Your task to perform on an android device: Open the map Image 0: 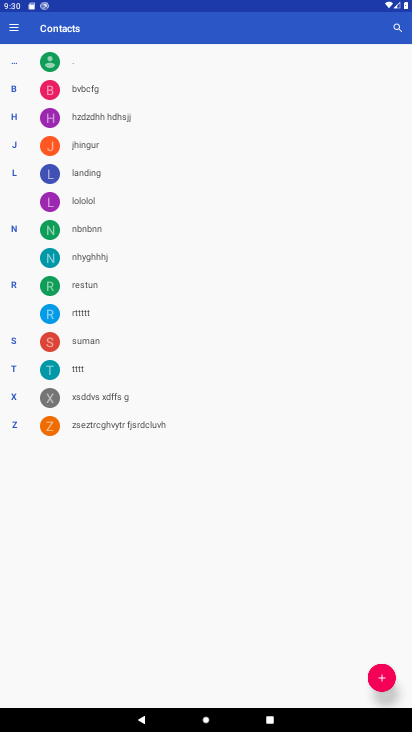
Step 0: press home button
Your task to perform on an android device: Open the map Image 1: 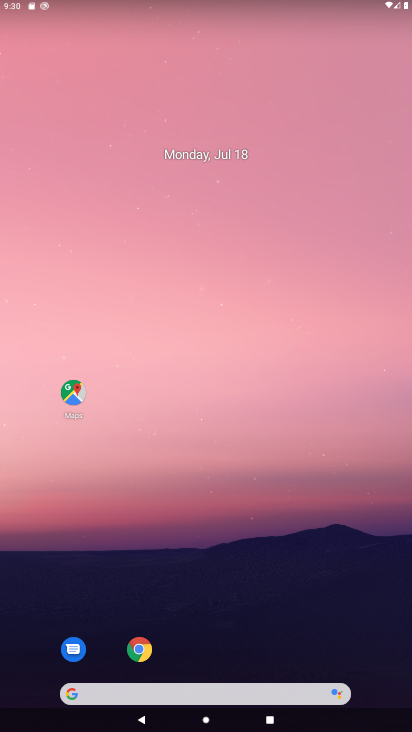
Step 1: drag from (251, 621) to (272, 17)
Your task to perform on an android device: Open the map Image 2: 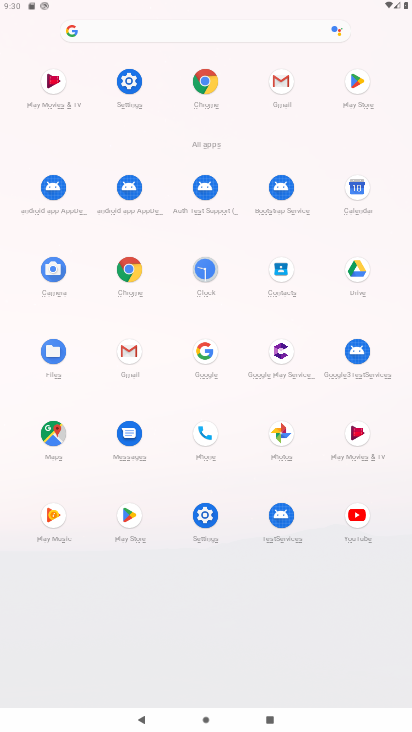
Step 2: click (42, 432)
Your task to perform on an android device: Open the map Image 3: 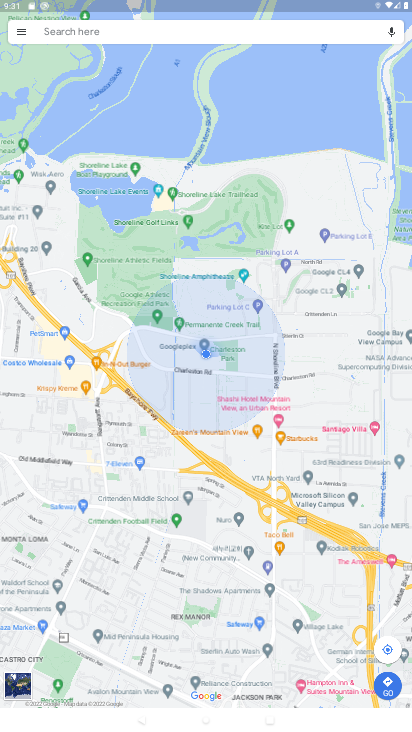
Step 3: task complete